Your task to perform on an android device: Open notification settings Image 0: 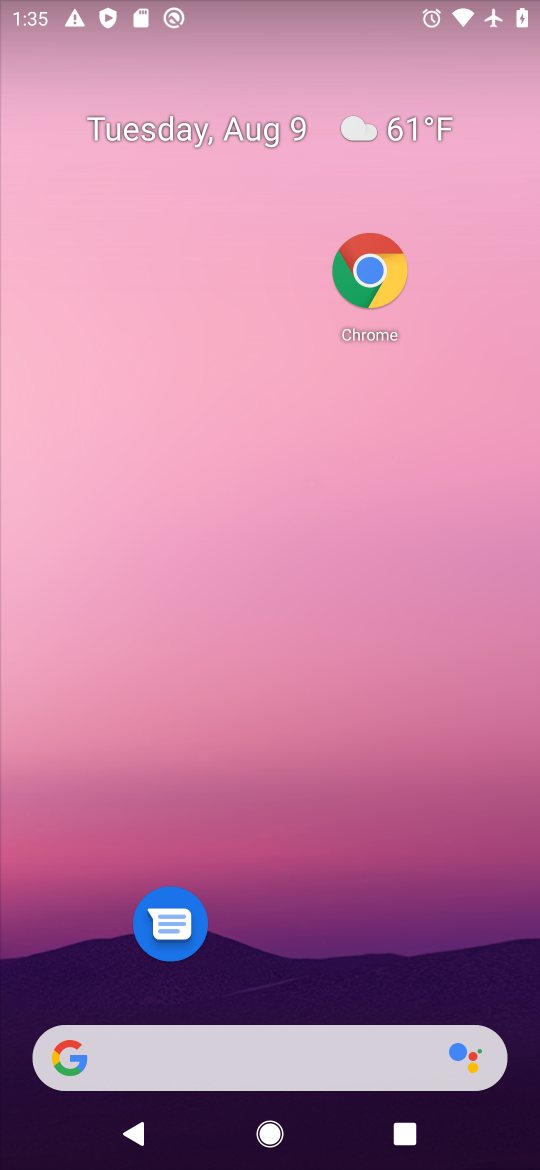
Step 0: drag from (407, 1004) to (250, 50)
Your task to perform on an android device: Open notification settings Image 1: 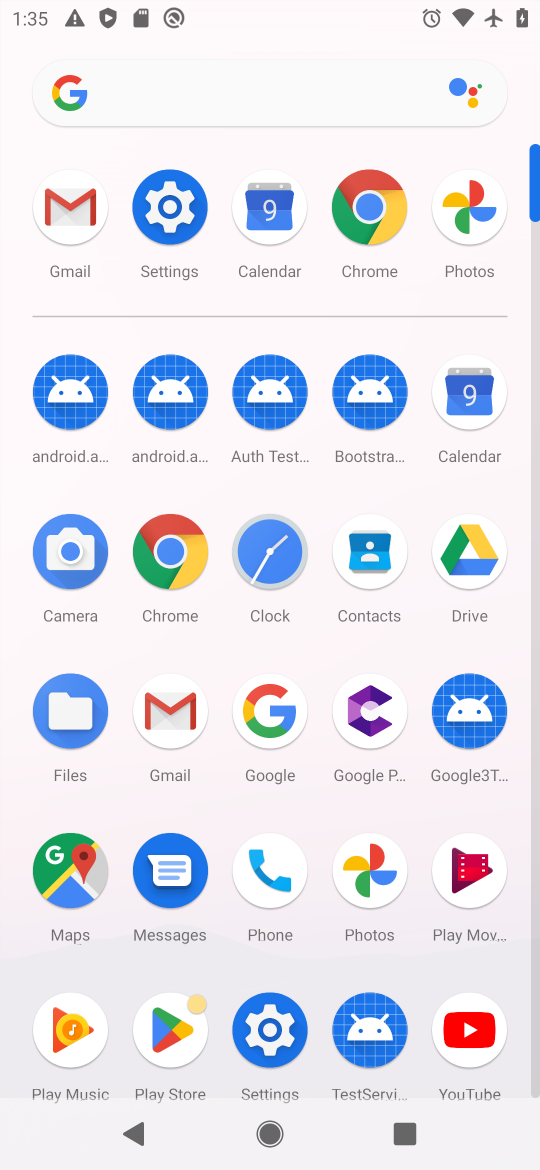
Step 1: click (266, 1009)
Your task to perform on an android device: Open notification settings Image 2: 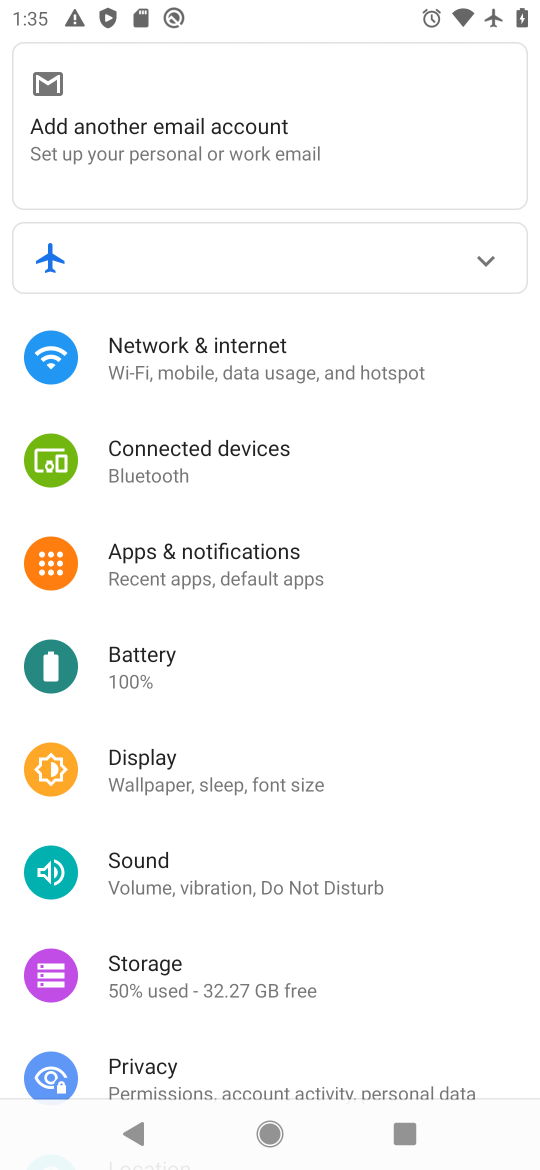
Step 2: click (220, 569)
Your task to perform on an android device: Open notification settings Image 3: 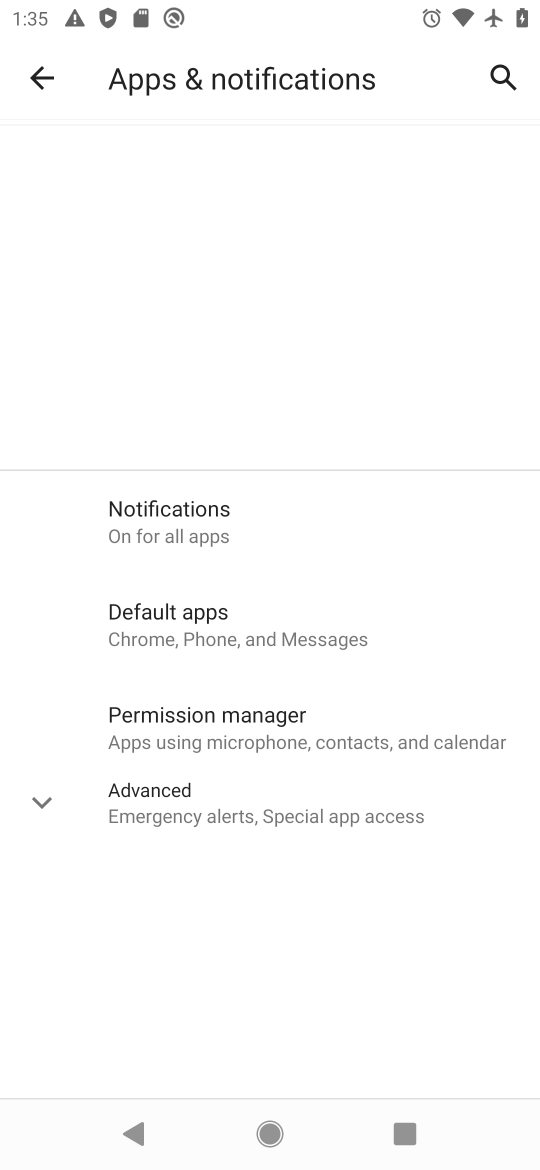
Step 3: task complete